Your task to perform on an android device: open chrome and create a bookmark for the current page Image 0: 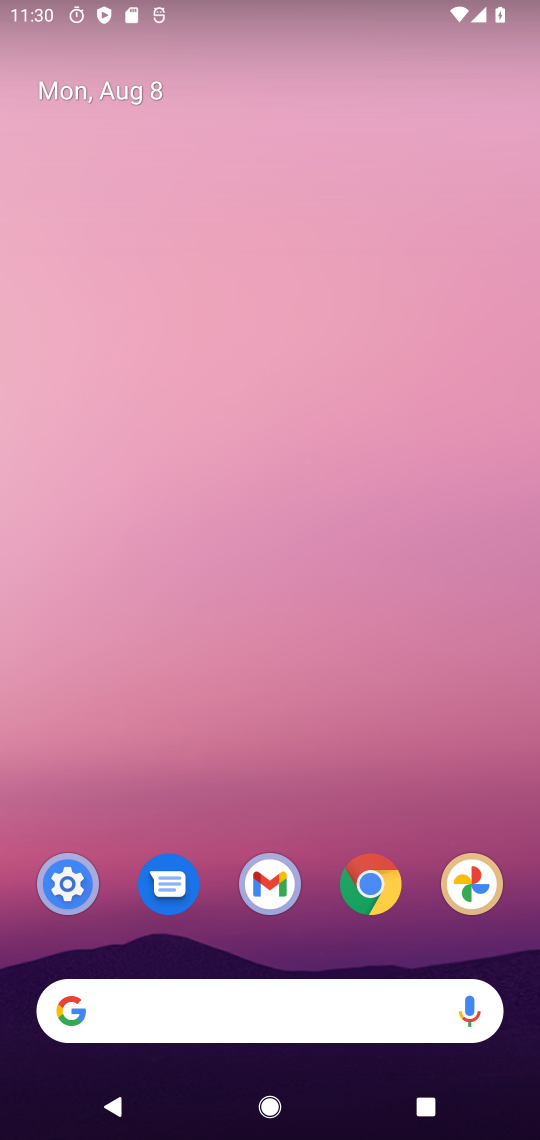
Step 0: click (376, 876)
Your task to perform on an android device: open chrome and create a bookmark for the current page Image 1: 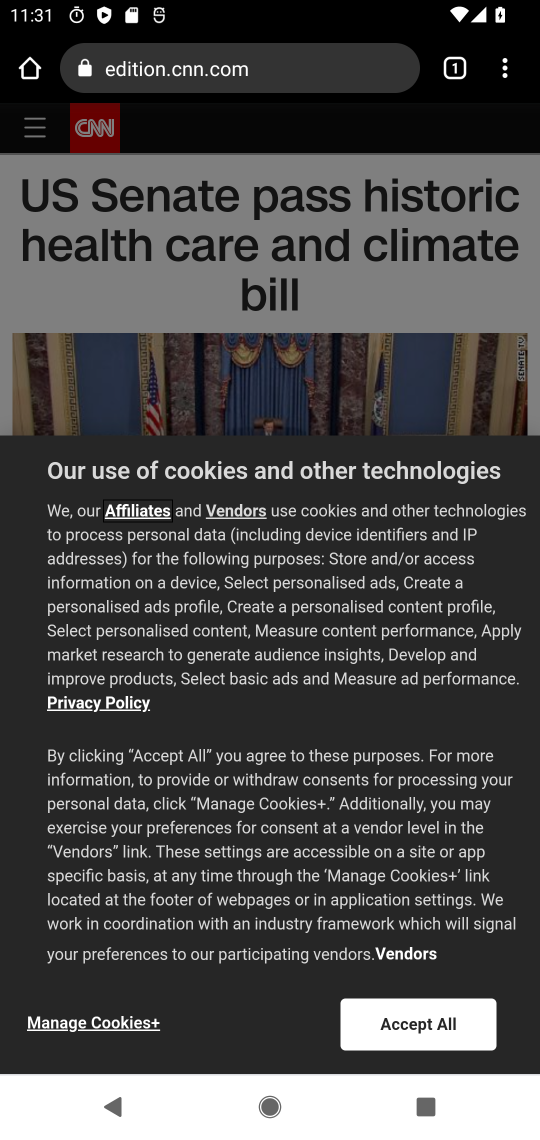
Step 1: click (508, 66)
Your task to perform on an android device: open chrome and create a bookmark for the current page Image 2: 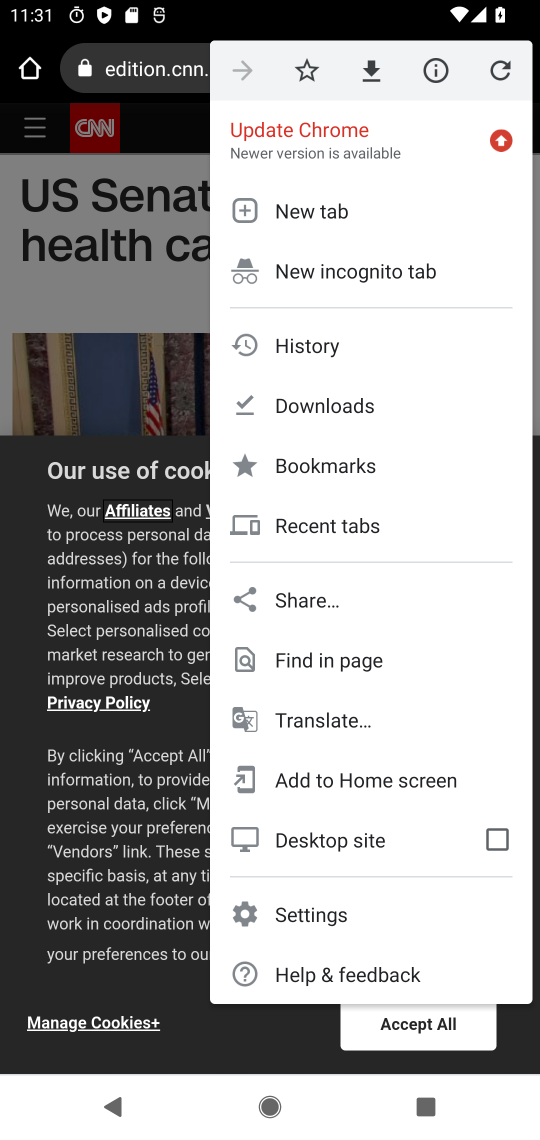
Step 2: click (295, 73)
Your task to perform on an android device: open chrome and create a bookmark for the current page Image 3: 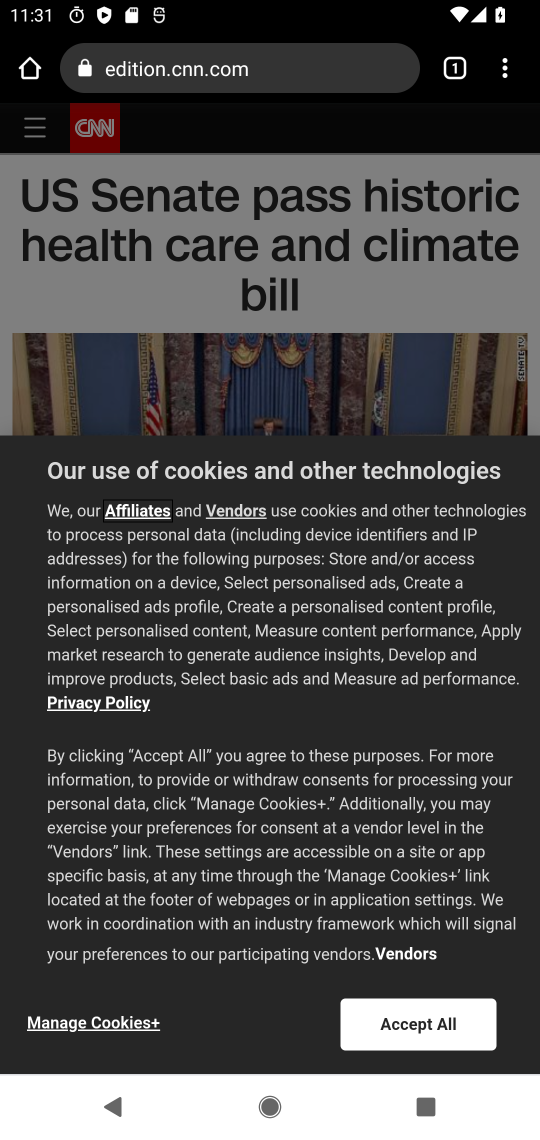
Step 3: task complete